Your task to perform on an android device: Open location settings Image 0: 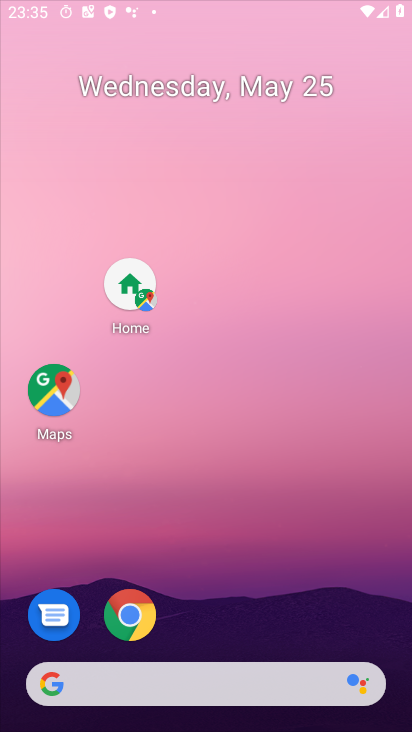
Step 0: press home button
Your task to perform on an android device: Open location settings Image 1: 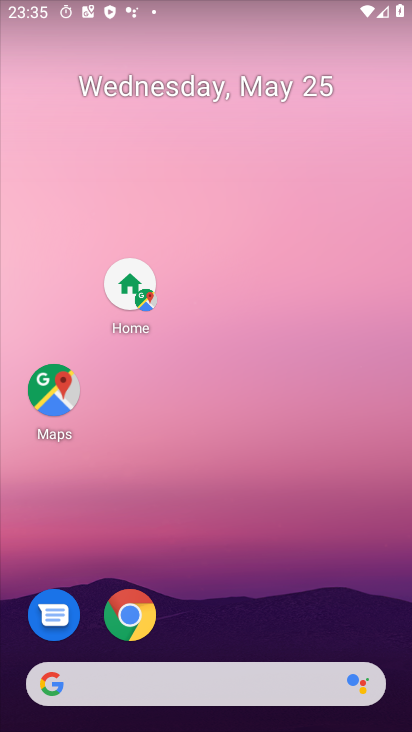
Step 1: drag from (288, 588) to (266, 326)
Your task to perform on an android device: Open location settings Image 2: 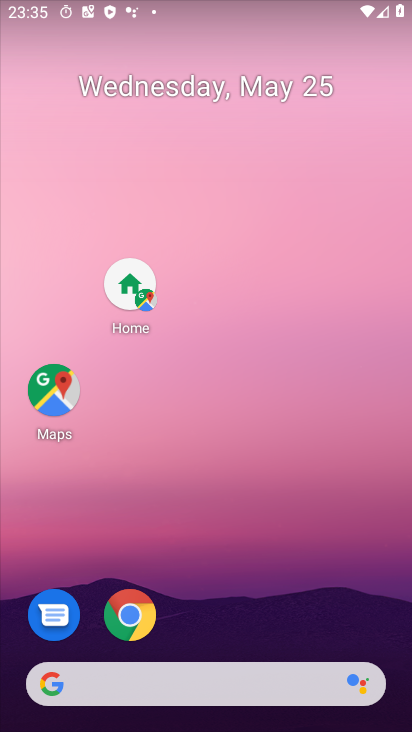
Step 2: drag from (296, 618) to (277, 0)
Your task to perform on an android device: Open location settings Image 3: 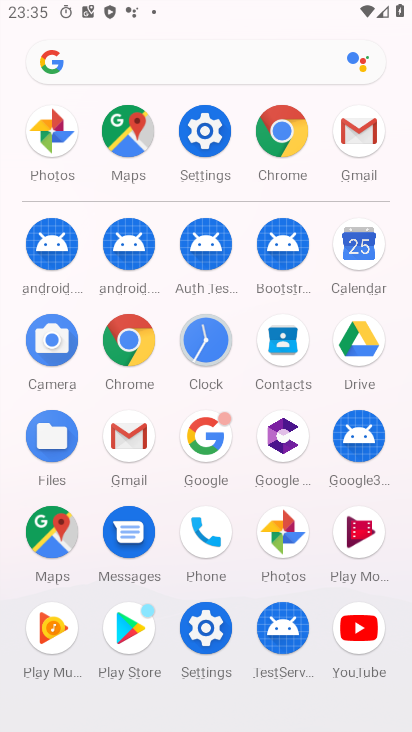
Step 3: click (204, 132)
Your task to perform on an android device: Open location settings Image 4: 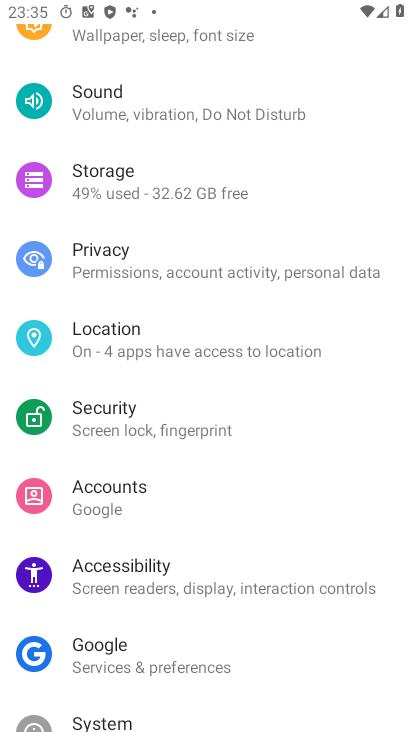
Step 4: click (105, 336)
Your task to perform on an android device: Open location settings Image 5: 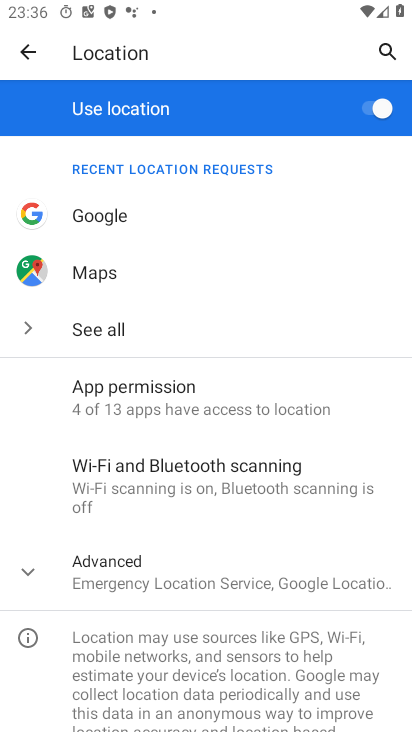
Step 5: task complete